Your task to perform on an android device: check data usage Image 0: 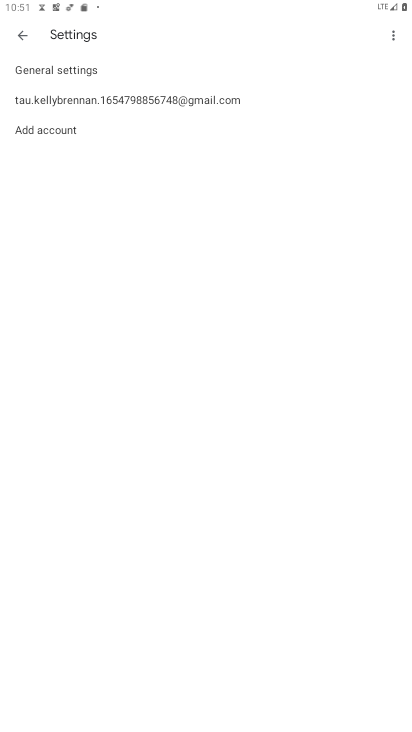
Step 0: press home button
Your task to perform on an android device: check data usage Image 1: 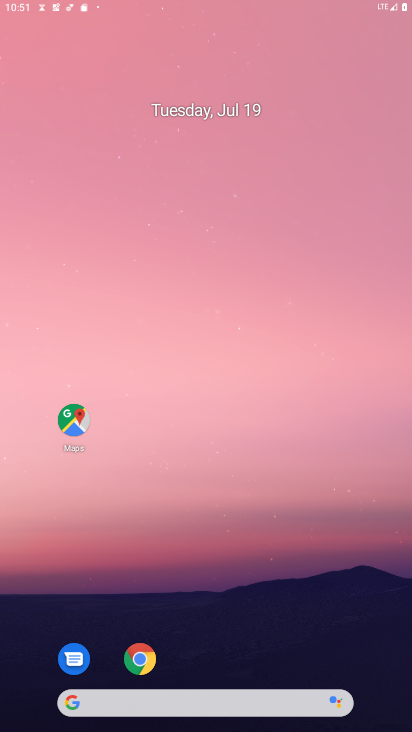
Step 1: drag from (224, 665) to (295, 10)
Your task to perform on an android device: check data usage Image 2: 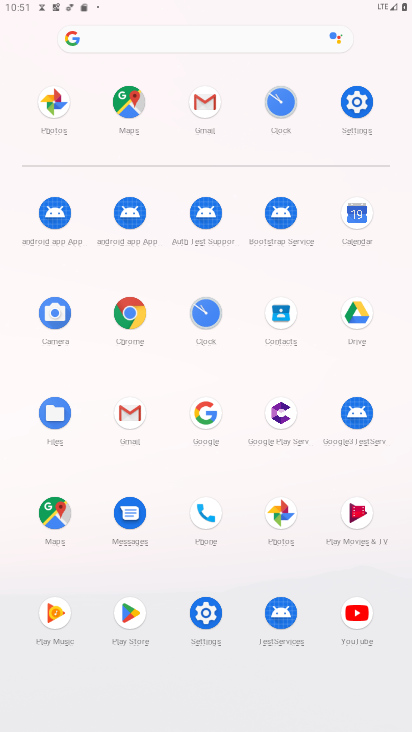
Step 2: click (361, 88)
Your task to perform on an android device: check data usage Image 3: 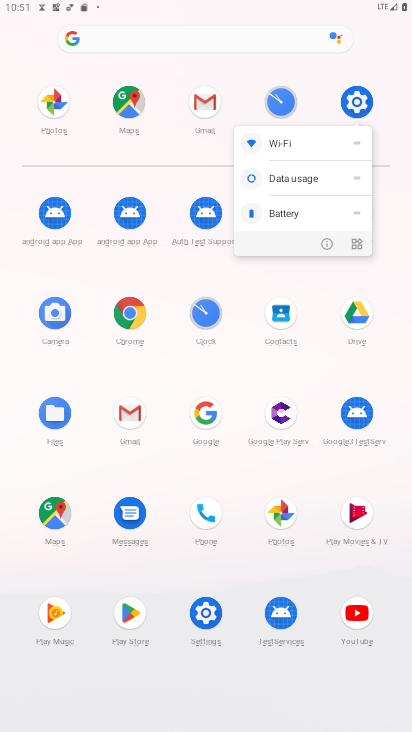
Step 3: click (328, 245)
Your task to perform on an android device: check data usage Image 4: 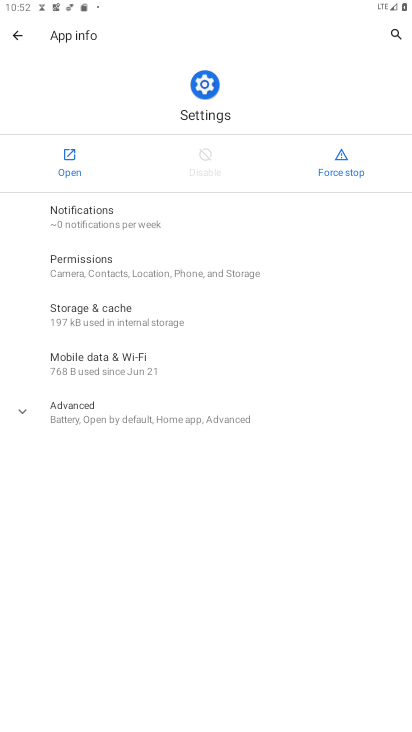
Step 4: click (67, 157)
Your task to perform on an android device: check data usage Image 5: 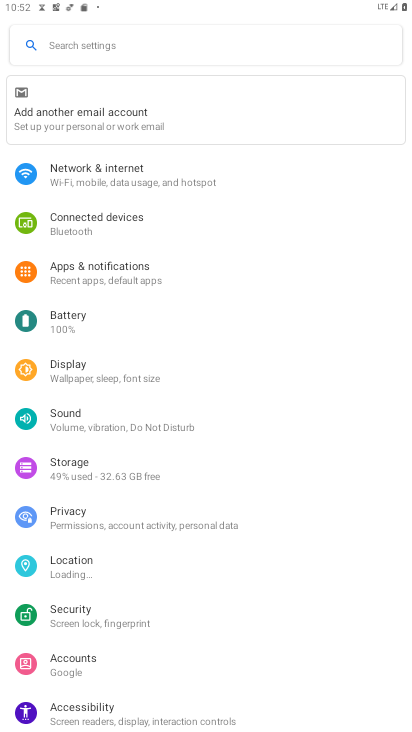
Step 5: click (118, 173)
Your task to perform on an android device: check data usage Image 6: 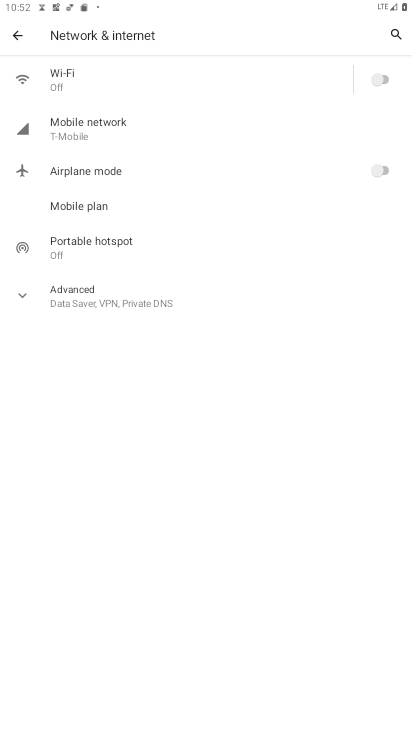
Step 6: click (101, 115)
Your task to perform on an android device: check data usage Image 7: 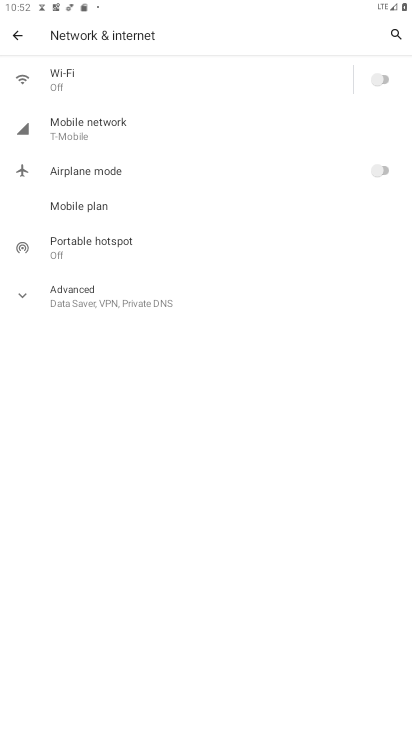
Step 7: click (101, 115)
Your task to perform on an android device: check data usage Image 8: 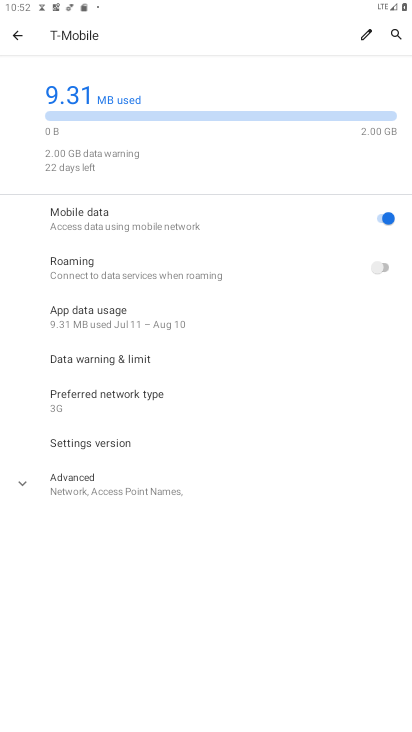
Step 8: task complete